Your task to perform on an android device: clear all cookies in the chrome app Image 0: 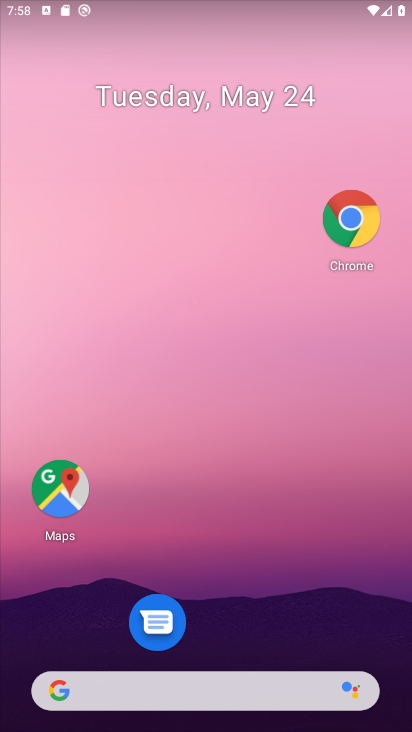
Step 0: press home button
Your task to perform on an android device: clear all cookies in the chrome app Image 1: 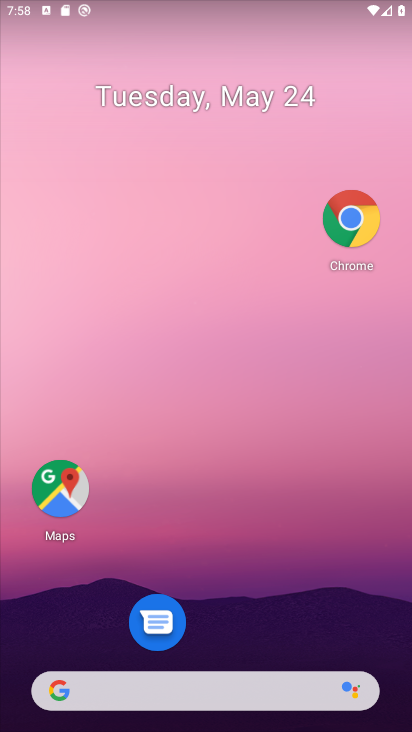
Step 1: drag from (306, 557) to (284, 167)
Your task to perform on an android device: clear all cookies in the chrome app Image 2: 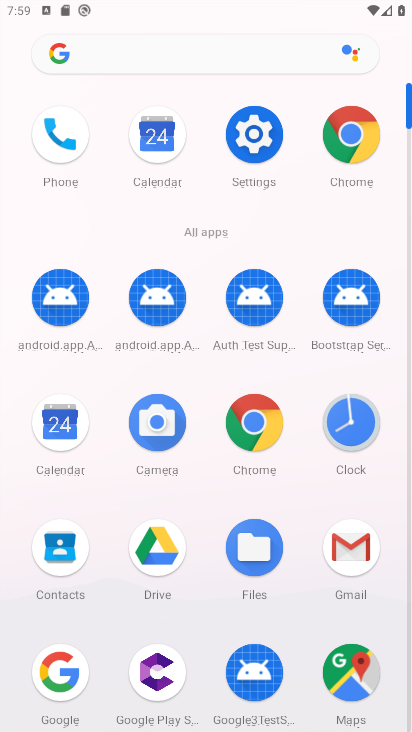
Step 2: click (249, 442)
Your task to perform on an android device: clear all cookies in the chrome app Image 3: 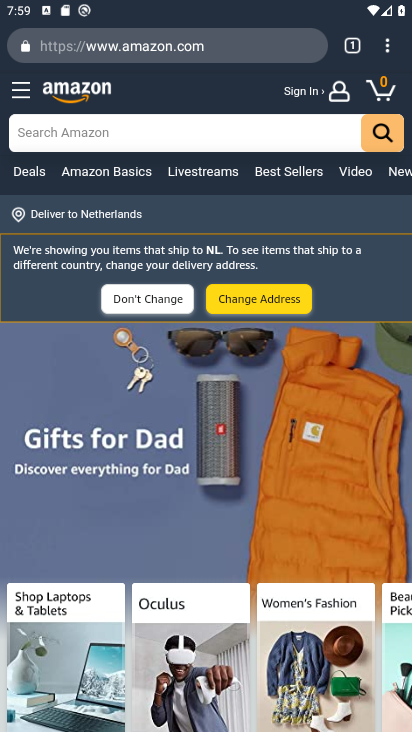
Step 3: click (382, 50)
Your task to perform on an android device: clear all cookies in the chrome app Image 4: 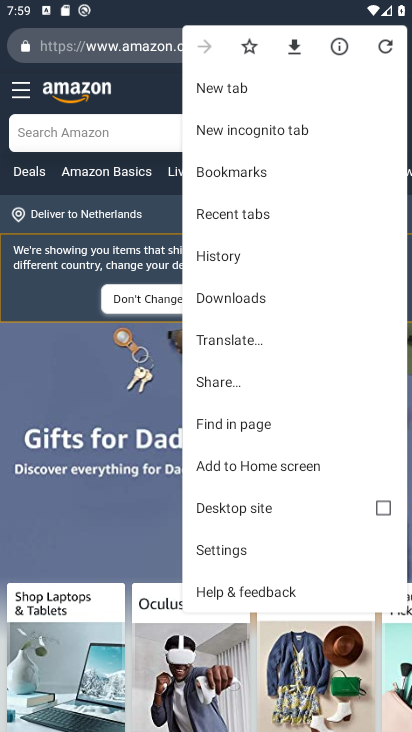
Step 4: click (244, 247)
Your task to perform on an android device: clear all cookies in the chrome app Image 5: 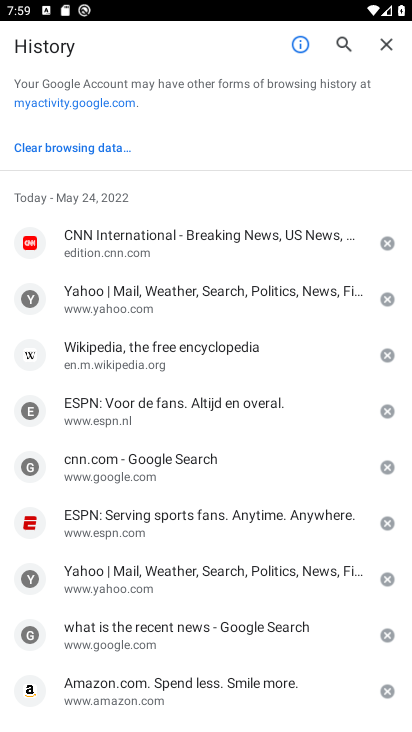
Step 5: click (73, 145)
Your task to perform on an android device: clear all cookies in the chrome app Image 6: 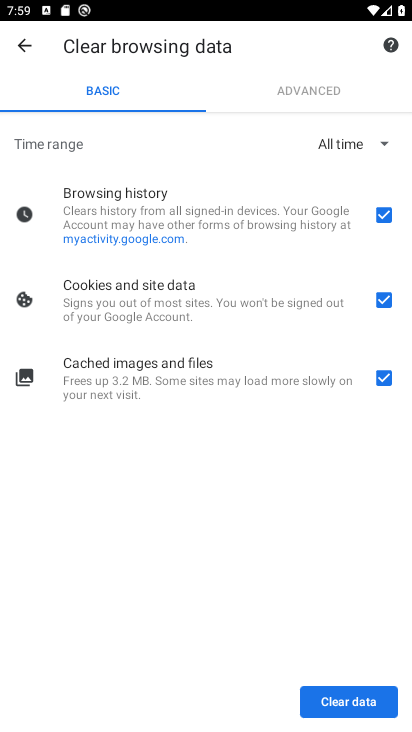
Step 6: click (336, 699)
Your task to perform on an android device: clear all cookies in the chrome app Image 7: 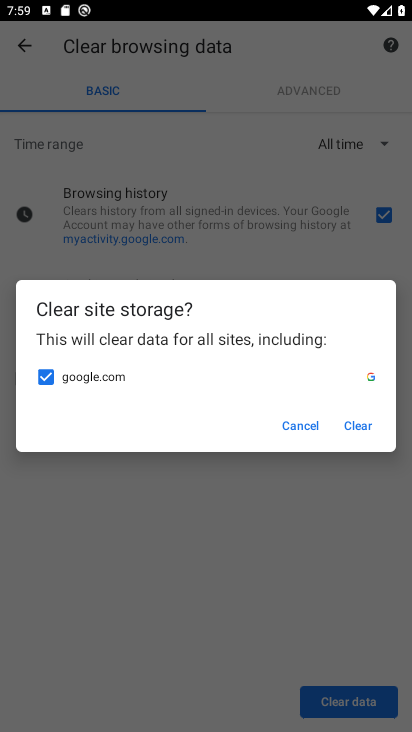
Step 7: task complete